Your task to perform on an android device: turn on wifi Image 0: 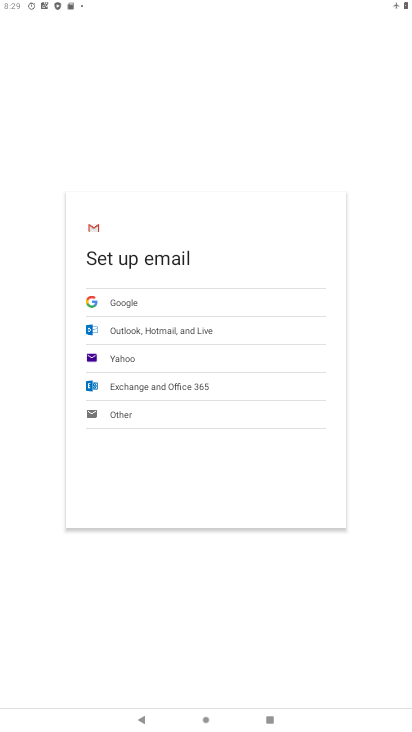
Step 0: press home button
Your task to perform on an android device: turn on wifi Image 1: 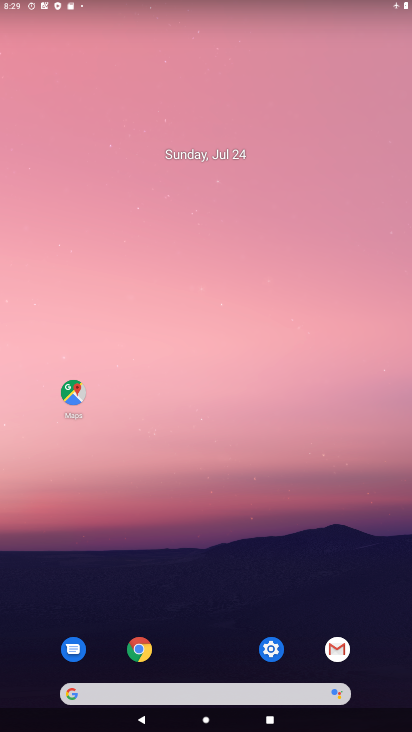
Step 1: click (278, 651)
Your task to perform on an android device: turn on wifi Image 2: 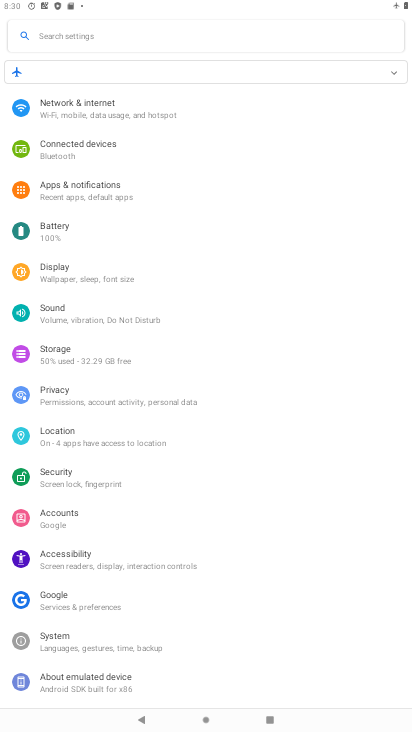
Step 2: click (130, 113)
Your task to perform on an android device: turn on wifi Image 3: 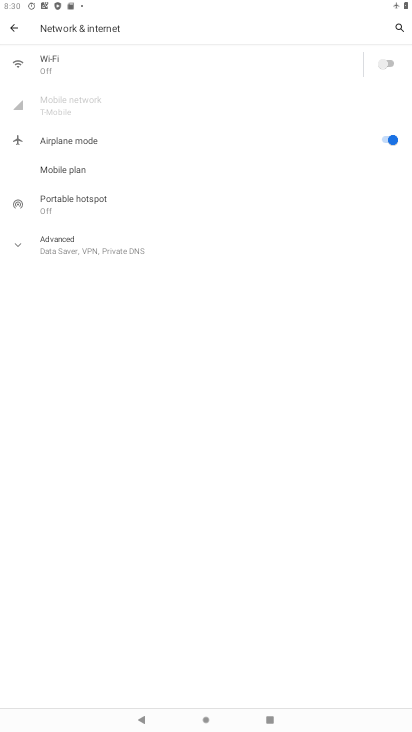
Step 3: click (247, 139)
Your task to perform on an android device: turn on wifi Image 4: 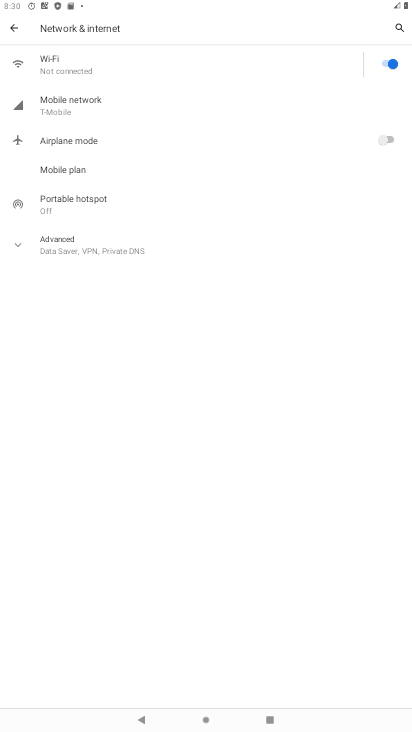
Step 4: click (198, 56)
Your task to perform on an android device: turn on wifi Image 5: 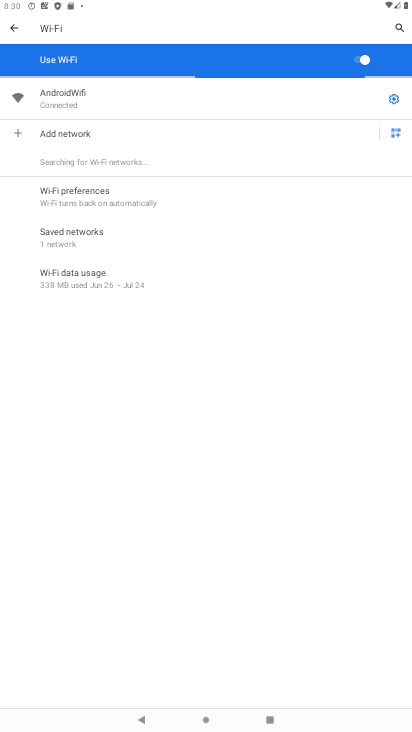
Step 5: task complete